Your task to perform on an android device: move a message to another label in the gmail app Image 0: 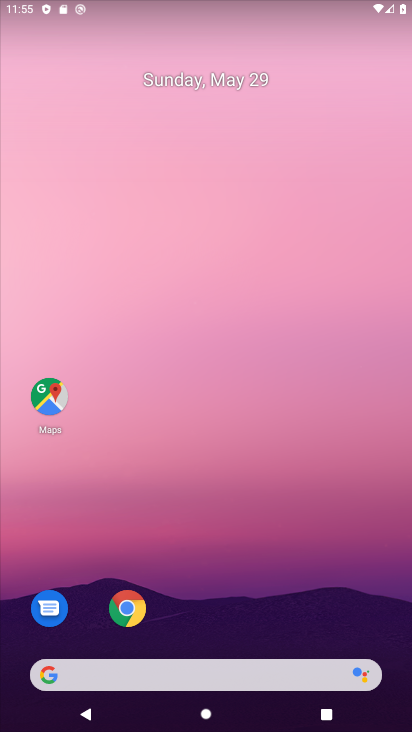
Step 0: drag from (226, 629) to (240, 3)
Your task to perform on an android device: move a message to another label in the gmail app Image 1: 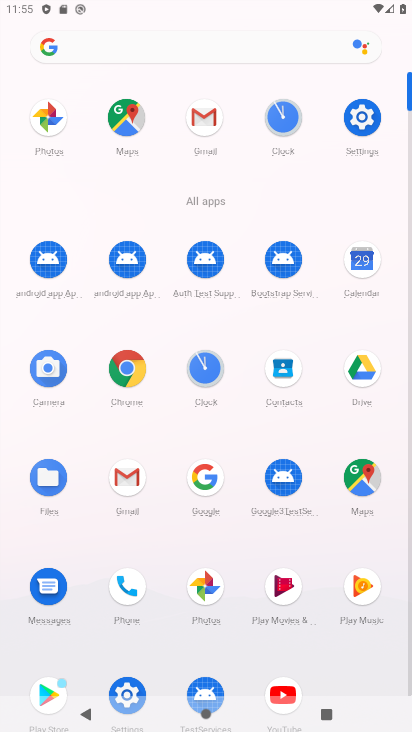
Step 1: click (131, 479)
Your task to perform on an android device: move a message to another label in the gmail app Image 2: 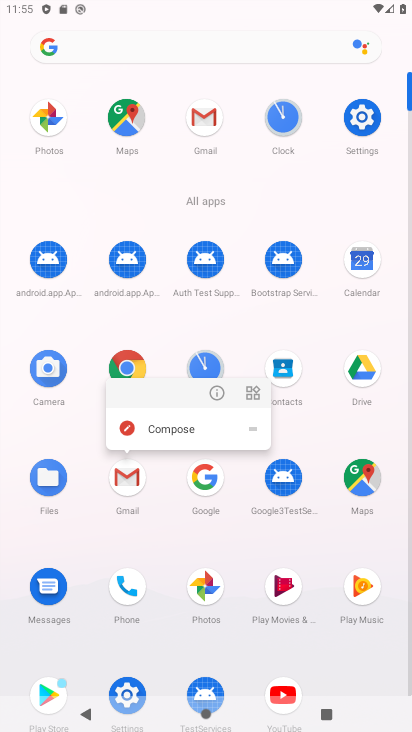
Step 2: click (131, 479)
Your task to perform on an android device: move a message to another label in the gmail app Image 3: 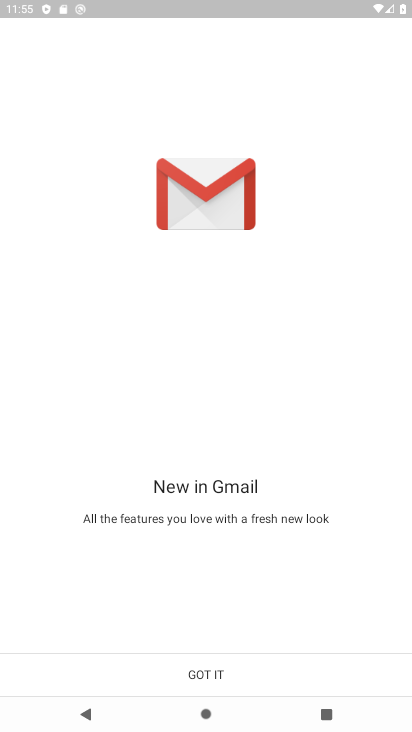
Step 3: click (239, 668)
Your task to perform on an android device: move a message to another label in the gmail app Image 4: 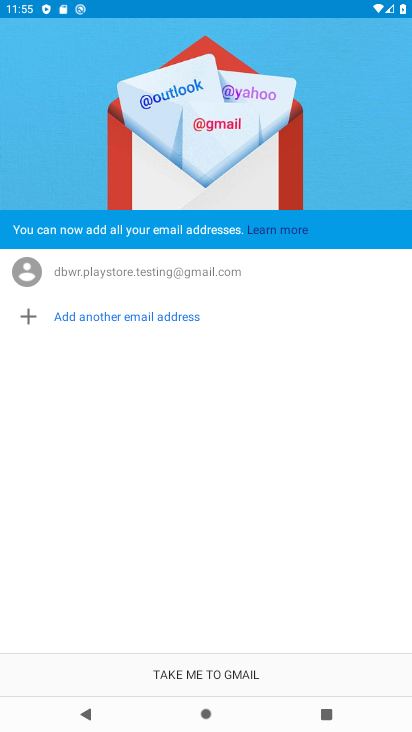
Step 4: click (239, 666)
Your task to perform on an android device: move a message to another label in the gmail app Image 5: 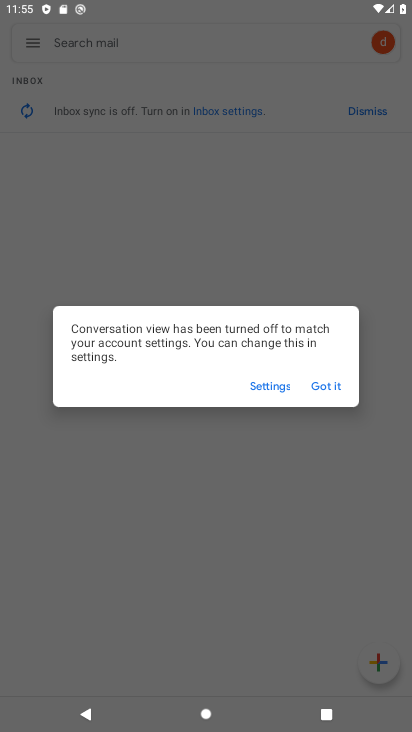
Step 5: click (330, 382)
Your task to perform on an android device: move a message to another label in the gmail app Image 6: 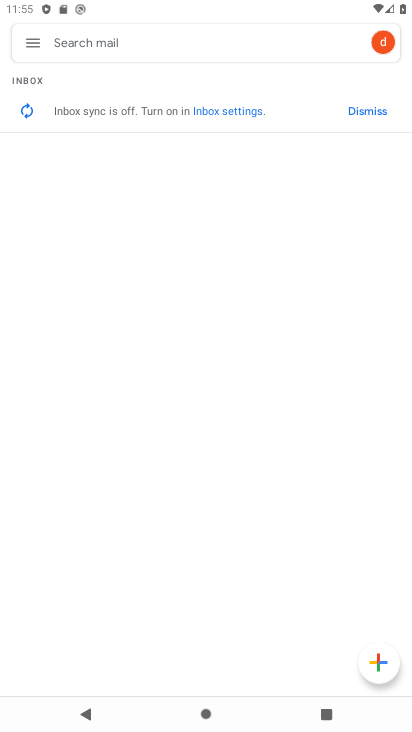
Step 6: click (44, 41)
Your task to perform on an android device: move a message to another label in the gmail app Image 7: 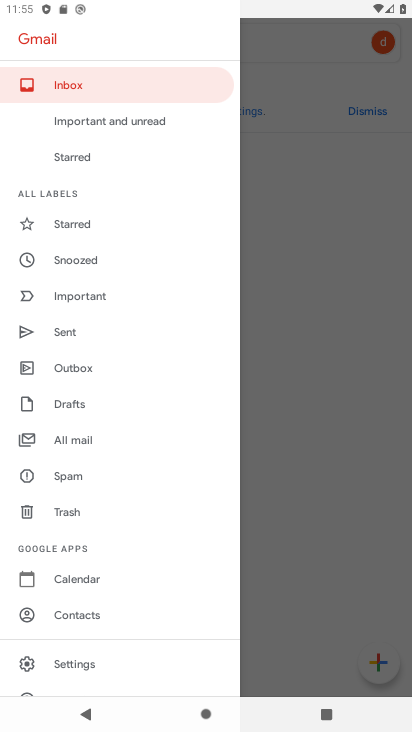
Step 7: click (88, 439)
Your task to perform on an android device: move a message to another label in the gmail app Image 8: 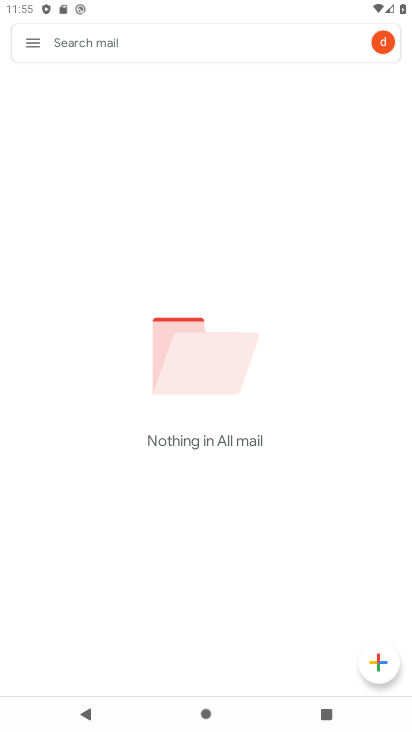
Step 8: task complete